Your task to perform on an android device: turn on javascript in the chrome app Image 0: 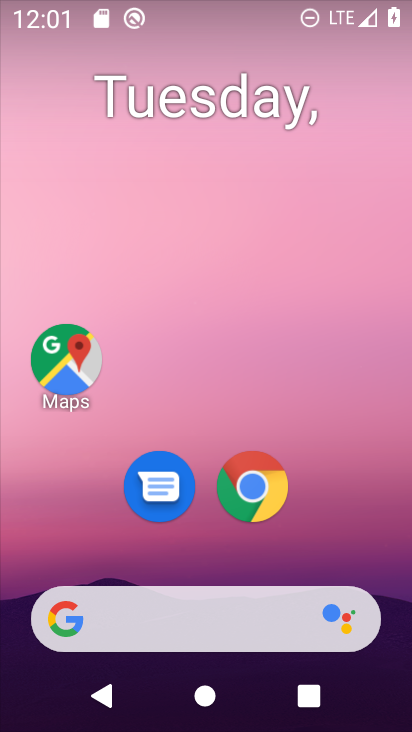
Step 0: click (271, 496)
Your task to perform on an android device: turn on javascript in the chrome app Image 1: 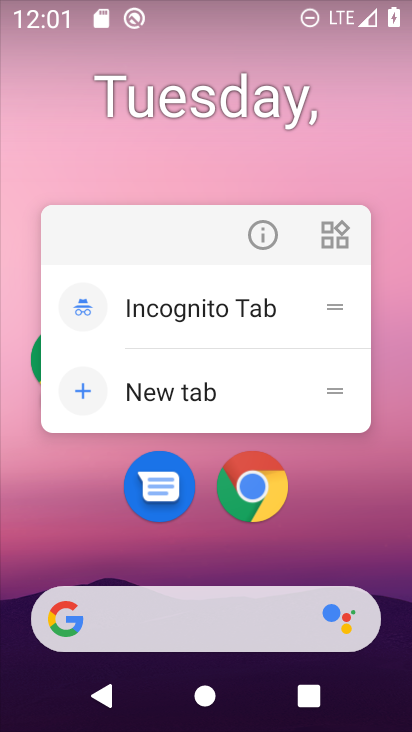
Step 1: click (261, 483)
Your task to perform on an android device: turn on javascript in the chrome app Image 2: 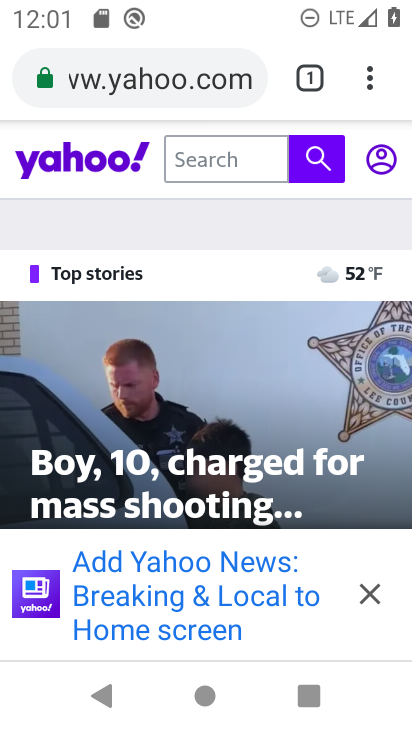
Step 2: click (368, 77)
Your task to perform on an android device: turn on javascript in the chrome app Image 3: 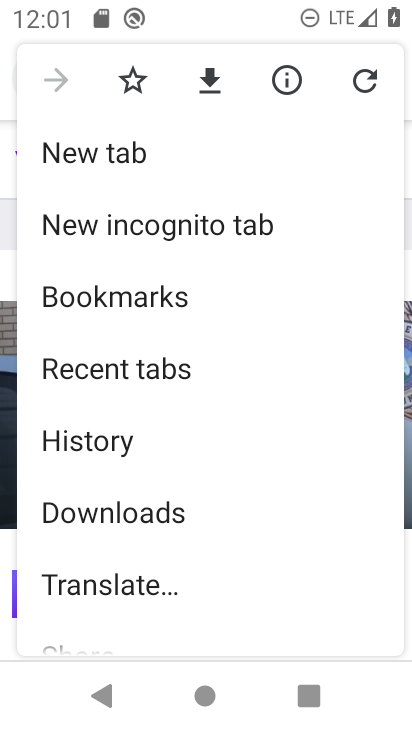
Step 3: drag from (81, 609) to (226, 163)
Your task to perform on an android device: turn on javascript in the chrome app Image 4: 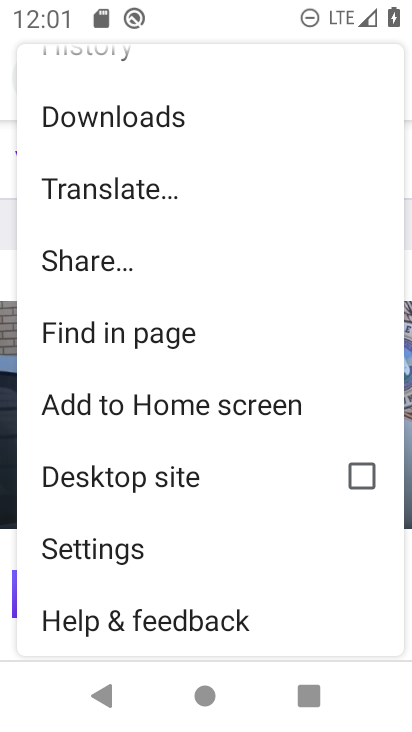
Step 4: click (116, 552)
Your task to perform on an android device: turn on javascript in the chrome app Image 5: 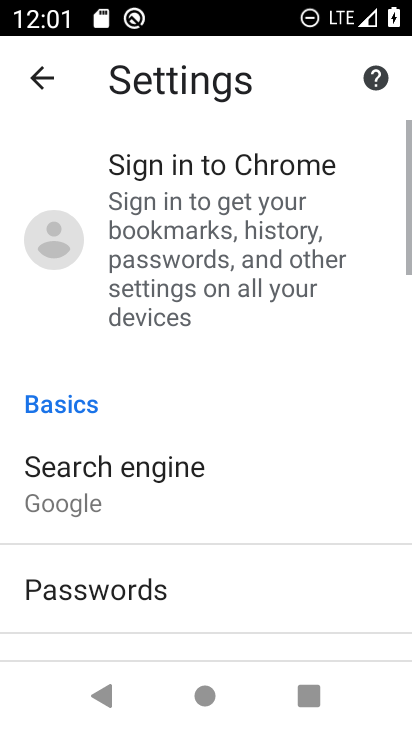
Step 5: drag from (17, 558) to (280, 138)
Your task to perform on an android device: turn on javascript in the chrome app Image 6: 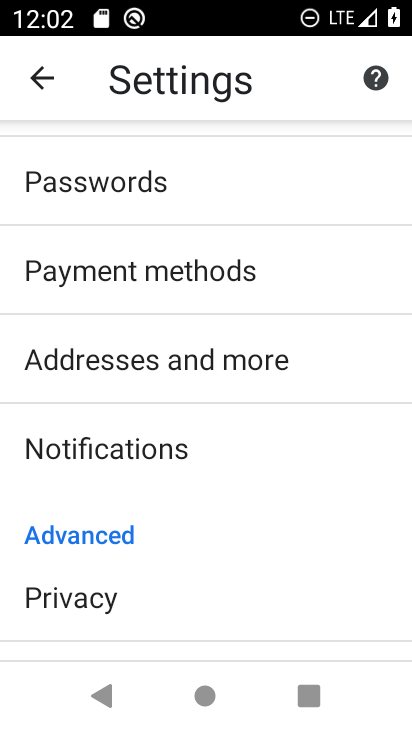
Step 6: drag from (21, 570) to (240, 216)
Your task to perform on an android device: turn on javascript in the chrome app Image 7: 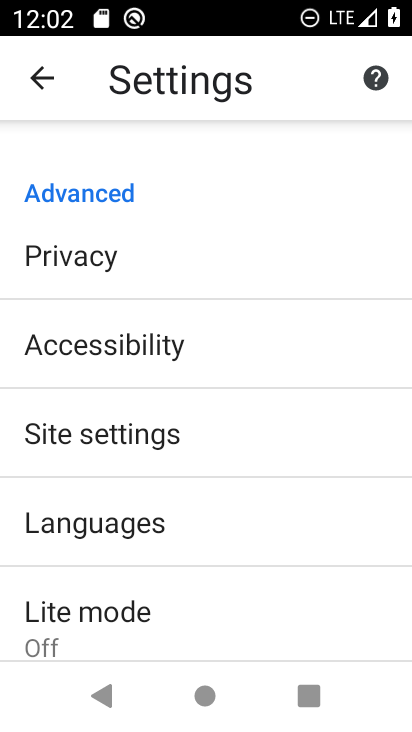
Step 7: click (119, 426)
Your task to perform on an android device: turn on javascript in the chrome app Image 8: 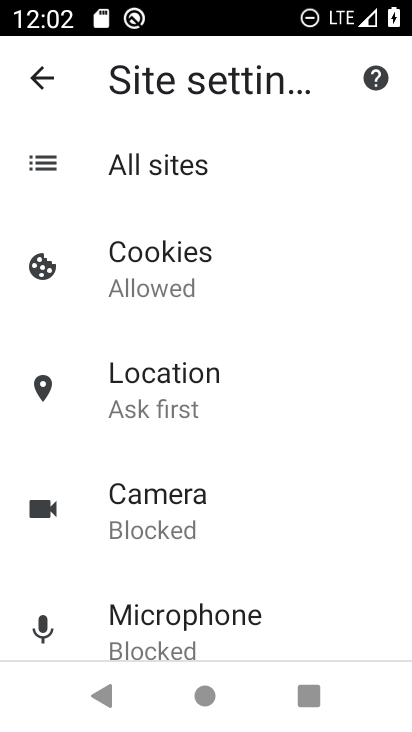
Step 8: drag from (81, 651) to (230, 338)
Your task to perform on an android device: turn on javascript in the chrome app Image 9: 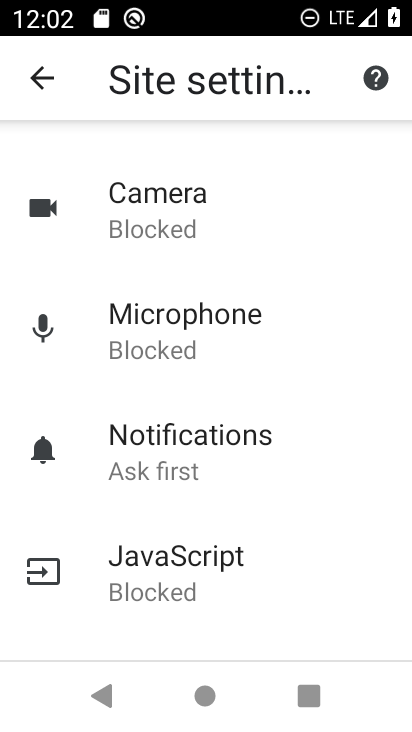
Step 9: click (160, 594)
Your task to perform on an android device: turn on javascript in the chrome app Image 10: 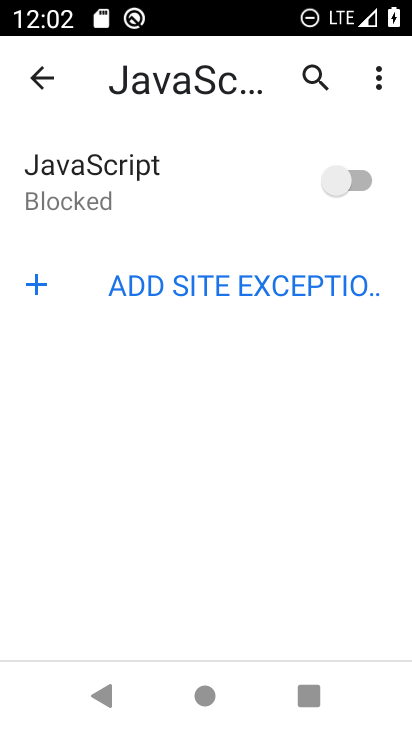
Step 10: click (337, 187)
Your task to perform on an android device: turn on javascript in the chrome app Image 11: 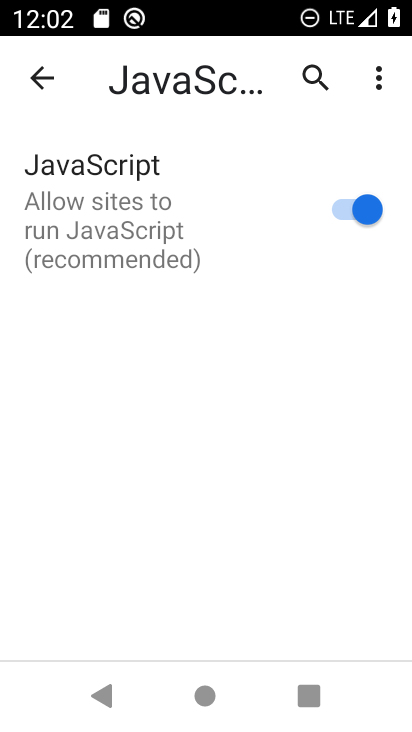
Step 11: task complete